Your task to perform on an android device: toggle notification dots Image 0: 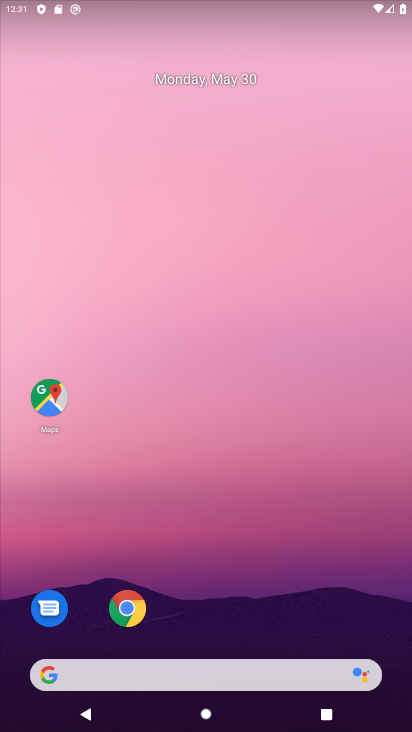
Step 0: drag from (288, 632) to (250, 247)
Your task to perform on an android device: toggle notification dots Image 1: 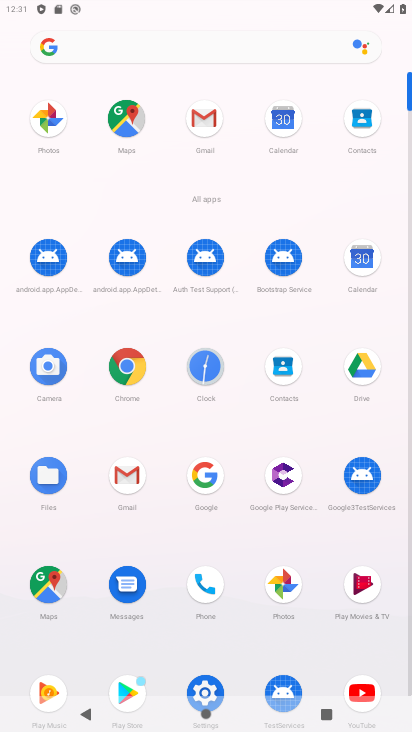
Step 1: click (205, 684)
Your task to perform on an android device: toggle notification dots Image 2: 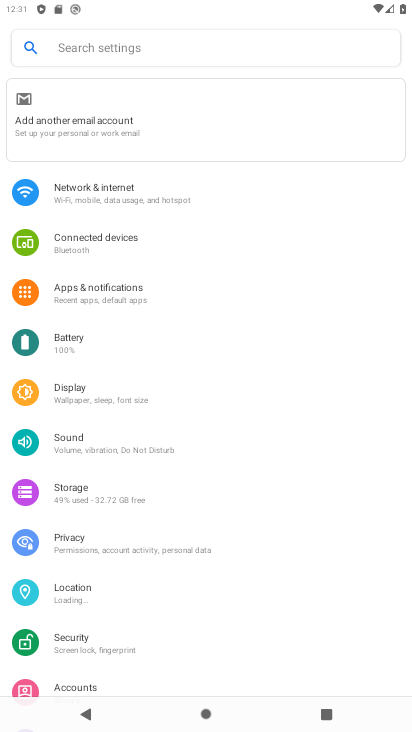
Step 2: drag from (233, 612) to (232, 372)
Your task to perform on an android device: toggle notification dots Image 3: 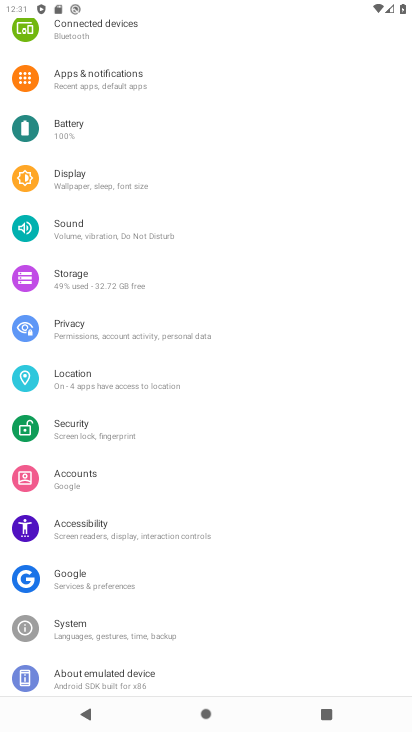
Step 3: click (159, 79)
Your task to perform on an android device: toggle notification dots Image 4: 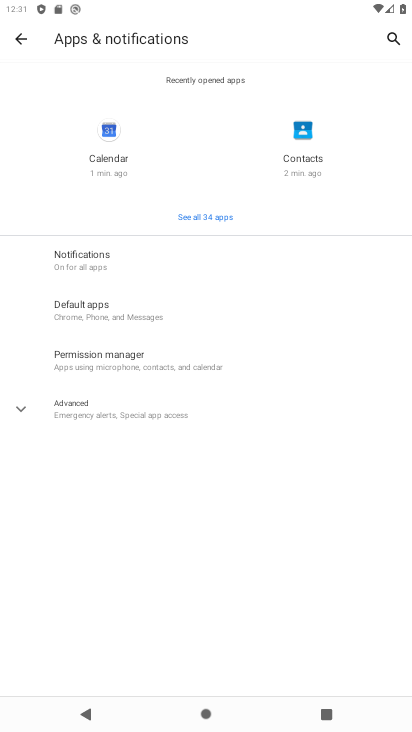
Step 4: click (151, 259)
Your task to perform on an android device: toggle notification dots Image 5: 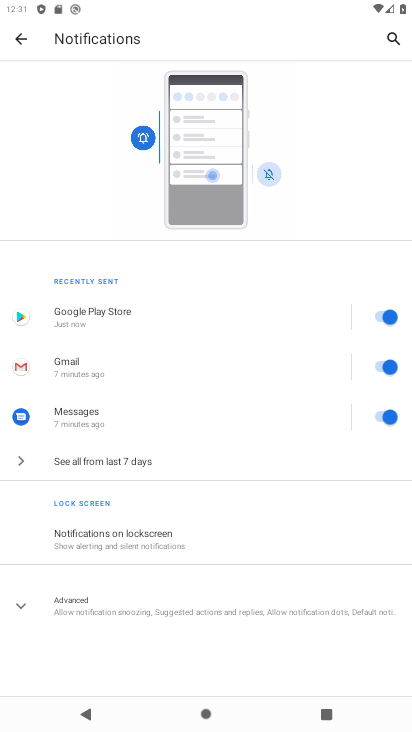
Step 5: click (190, 609)
Your task to perform on an android device: toggle notification dots Image 6: 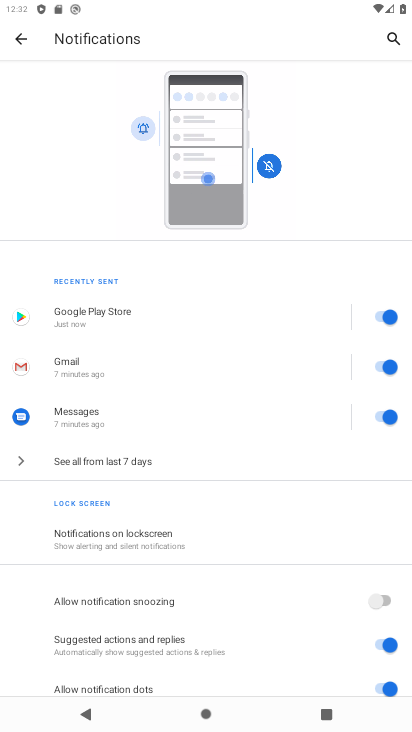
Step 6: drag from (226, 627) to (204, 406)
Your task to perform on an android device: toggle notification dots Image 7: 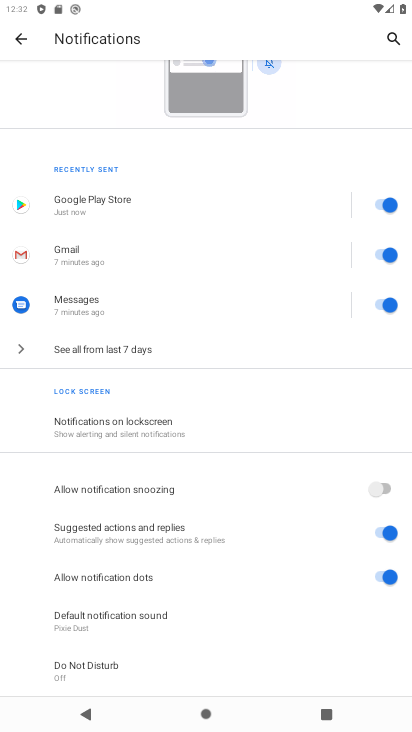
Step 7: click (392, 582)
Your task to perform on an android device: toggle notification dots Image 8: 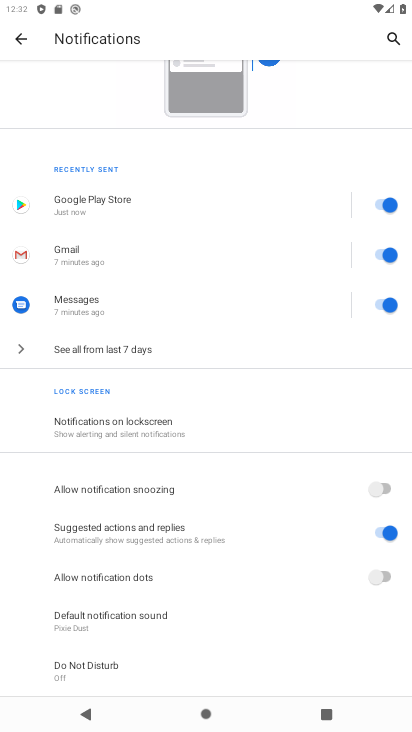
Step 8: task complete